Your task to perform on an android device: Go to Yahoo.com Image 0: 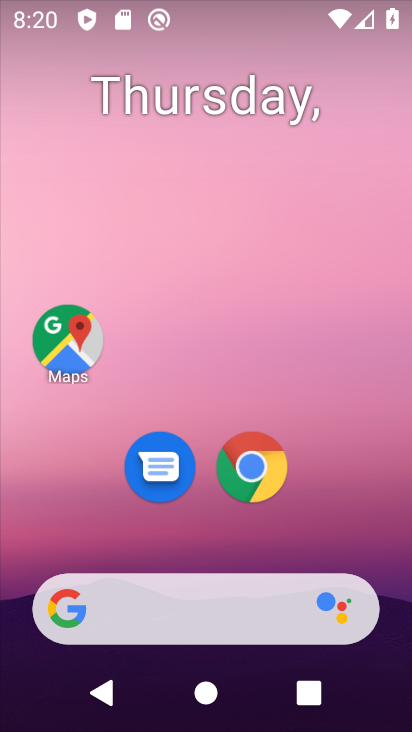
Step 0: click (258, 459)
Your task to perform on an android device: Go to Yahoo.com Image 1: 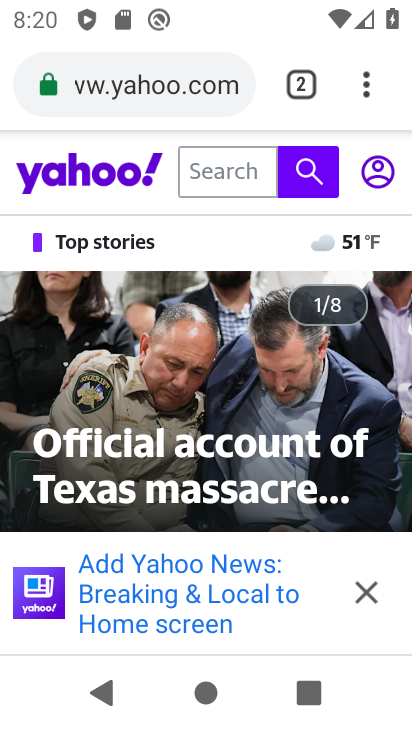
Step 1: task complete